Your task to perform on an android device: Toggle the flashlight Image 0: 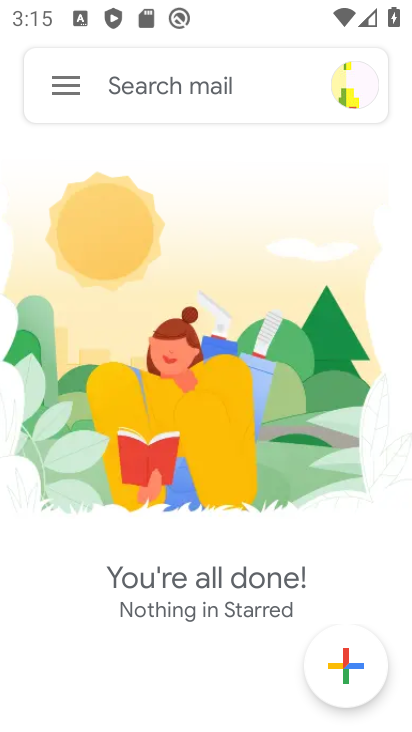
Step 0: drag from (264, 0) to (219, 373)
Your task to perform on an android device: Toggle the flashlight Image 1: 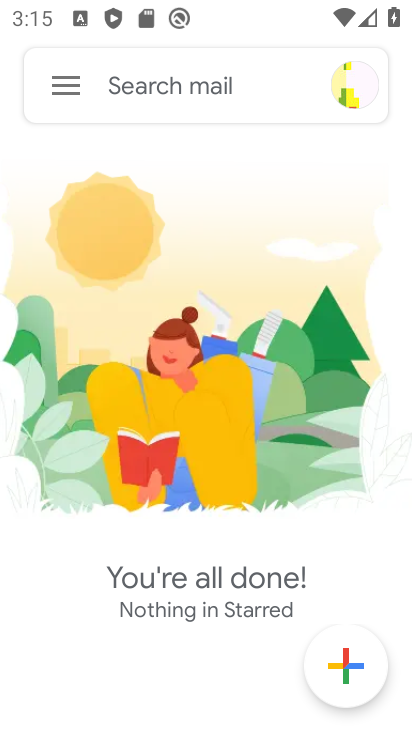
Step 1: task complete